Your task to perform on an android device: turn on showing notifications on the lock screen Image 0: 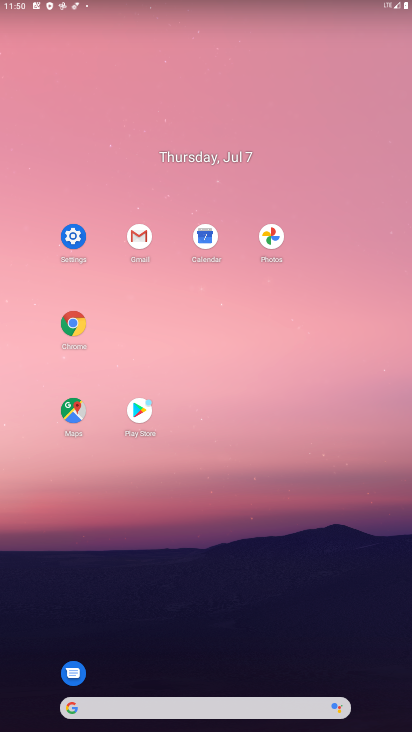
Step 0: click (74, 223)
Your task to perform on an android device: turn on showing notifications on the lock screen Image 1: 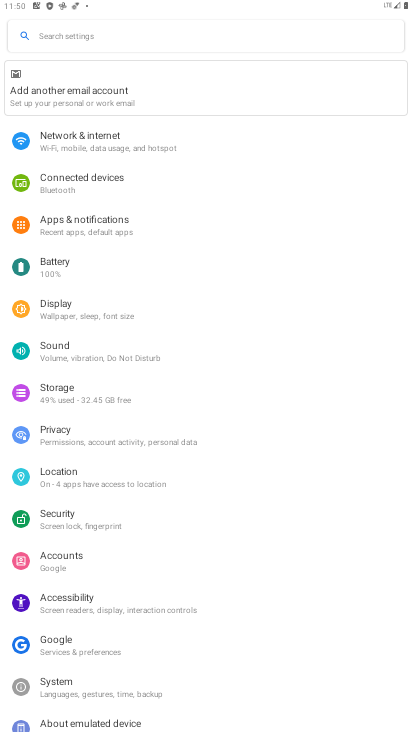
Step 1: click (61, 220)
Your task to perform on an android device: turn on showing notifications on the lock screen Image 2: 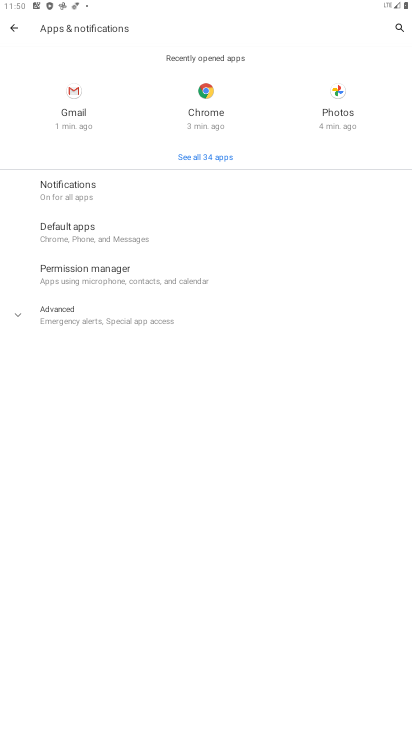
Step 2: click (96, 179)
Your task to perform on an android device: turn on showing notifications on the lock screen Image 3: 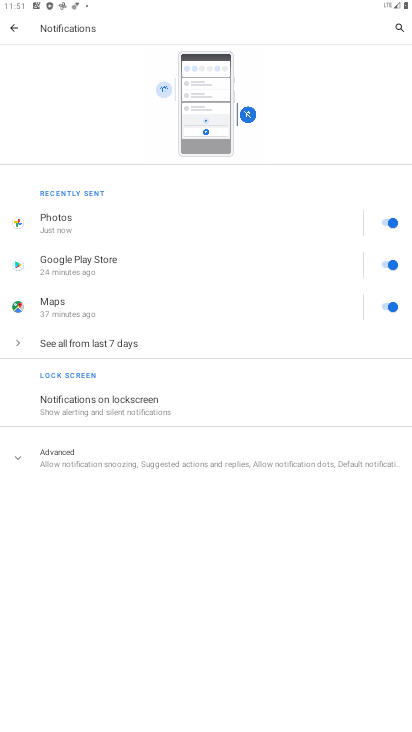
Step 3: click (94, 399)
Your task to perform on an android device: turn on showing notifications on the lock screen Image 4: 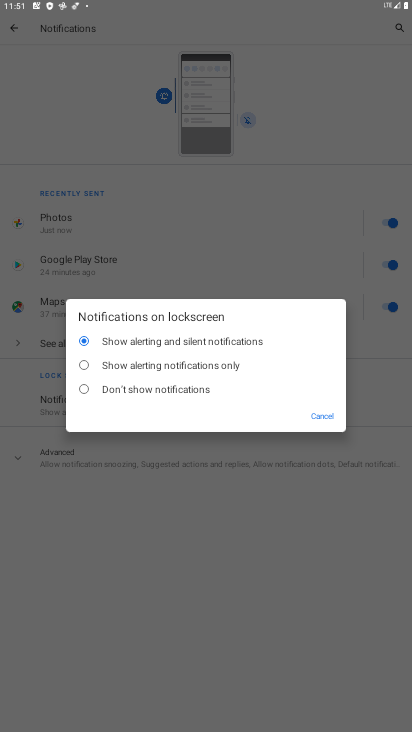
Step 4: task complete